Your task to perform on an android device: Go to Google maps Image 0: 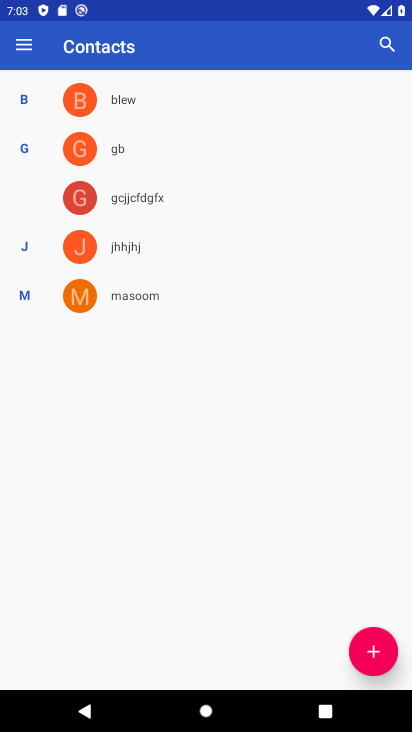
Step 0: press home button
Your task to perform on an android device: Go to Google maps Image 1: 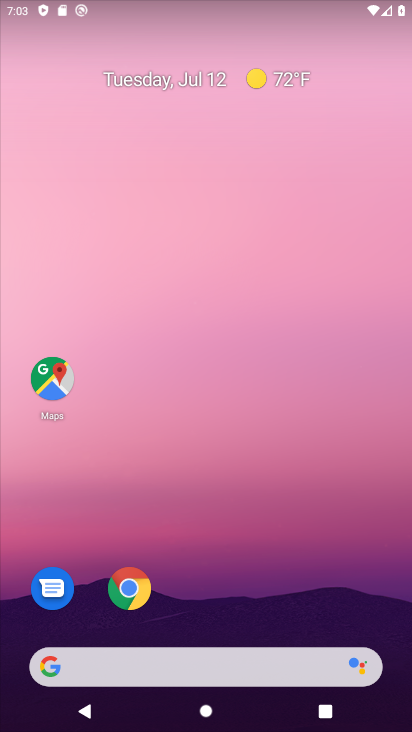
Step 1: drag from (301, 627) to (381, 122)
Your task to perform on an android device: Go to Google maps Image 2: 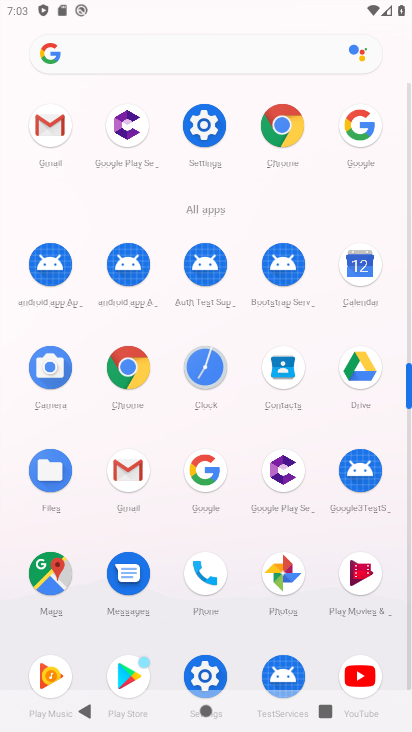
Step 2: click (51, 576)
Your task to perform on an android device: Go to Google maps Image 3: 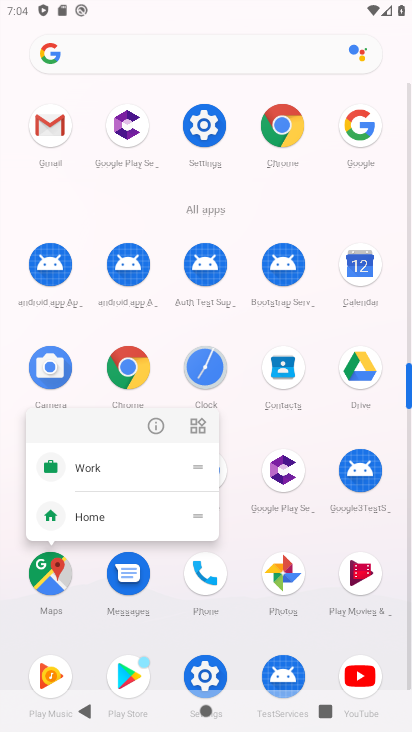
Step 3: click (54, 576)
Your task to perform on an android device: Go to Google maps Image 4: 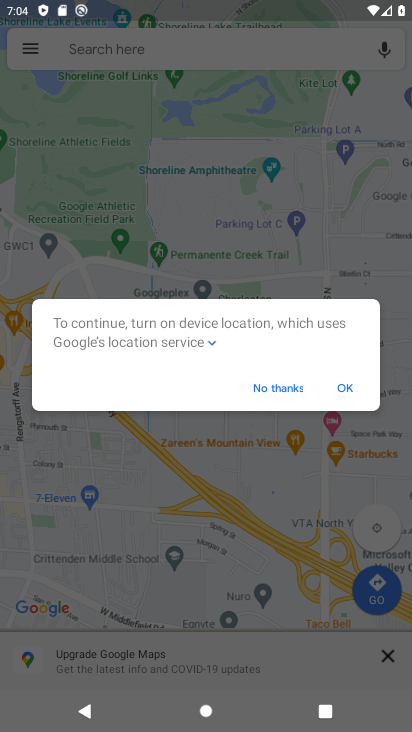
Step 4: task complete